Your task to perform on an android device: Open the calendar and show me this week's events? Image 0: 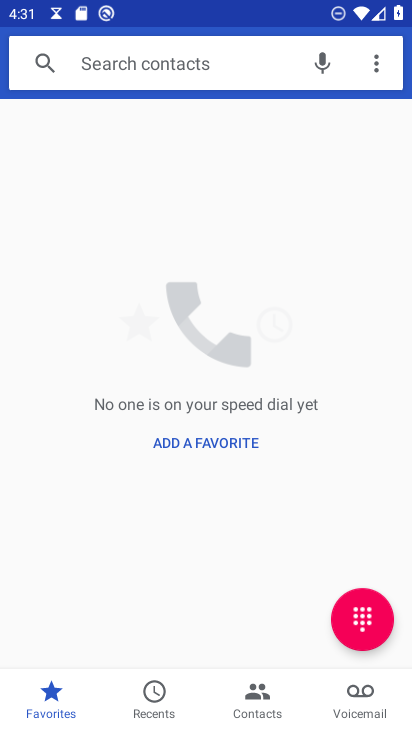
Step 0: press home button
Your task to perform on an android device: Open the calendar and show me this week's events? Image 1: 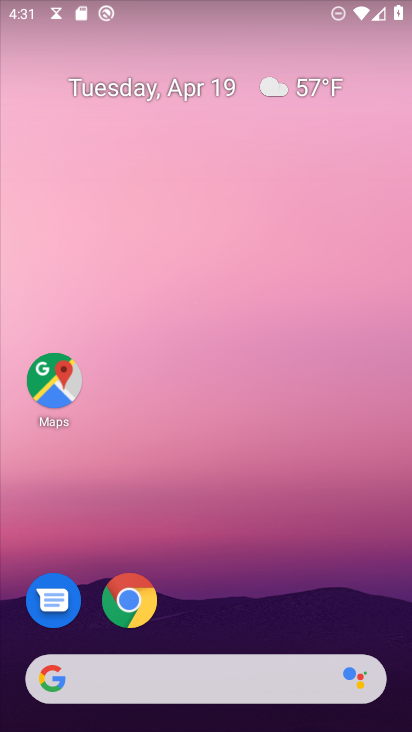
Step 1: drag from (328, 600) to (284, 169)
Your task to perform on an android device: Open the calendar and show me this week's events? Image 2: 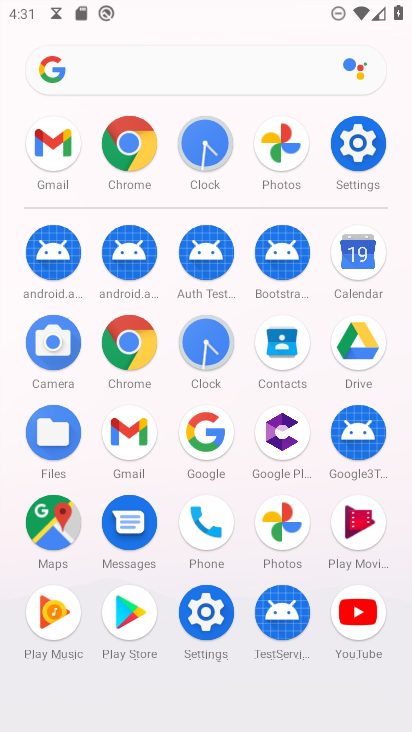
Step 2: click (374, 271)
Your task to perform on an android device: Open the calendar and show me this week's events? Image 3: 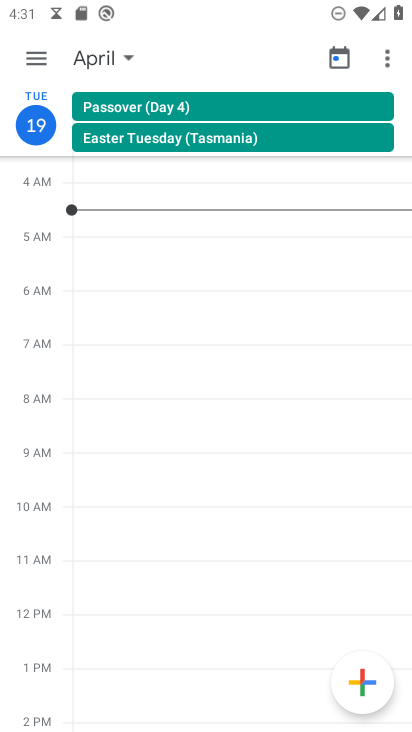
Step 3: click (41, 62)
Your task to perform on an android device: Open the calendar and show me this week's events? Image 4: 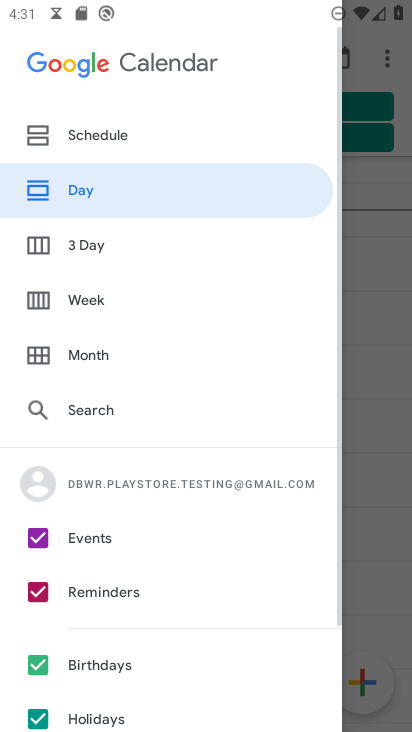
Step 4: drag from (241, 634) to (250, 276)
Your task to perform on an android device: Open the calendar and show me this week's events? Image 5: 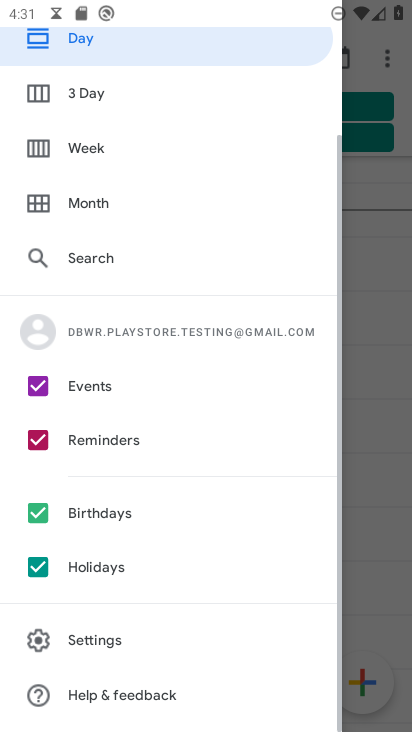
Step 5: click (129, 568)
Your task to perform on an android device: Open the calendar and show me this week's events? Image 6: 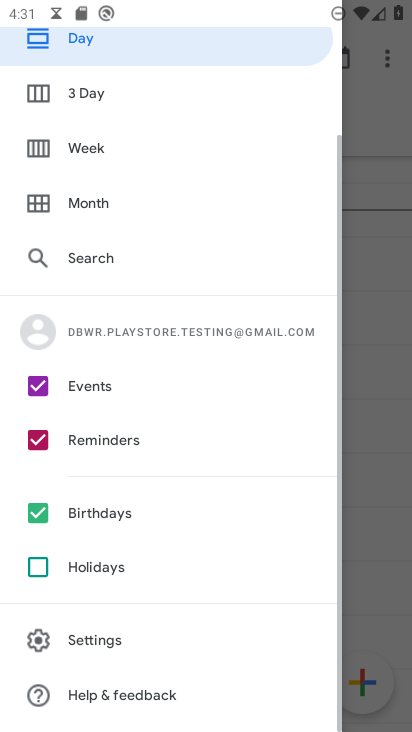
Step 6: click (134, 512)
Your task to perform on an android device: Open the calendar and show me this week's events? Image 7: 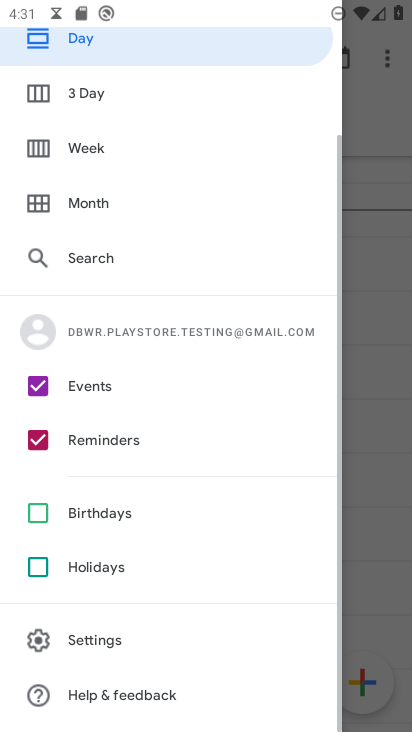
Step 7: click (140, 443)
Your task to perform on an android device: Open the calendar and show me this week's events? Image 8: 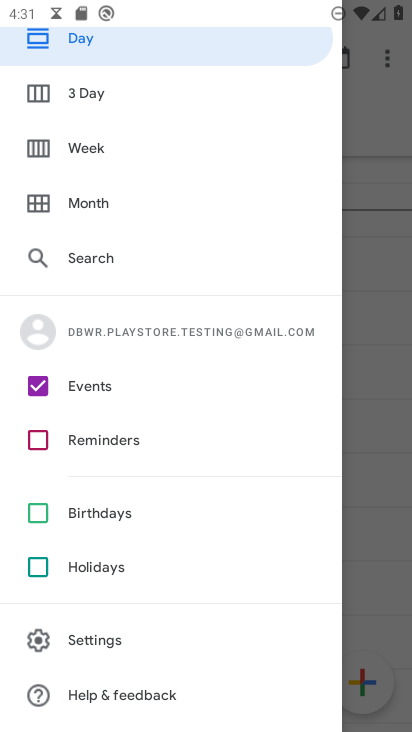
Step 8: click (162, 138)
Your task to perform on an android device: Open the calendar and show me this week's events? Image 9: 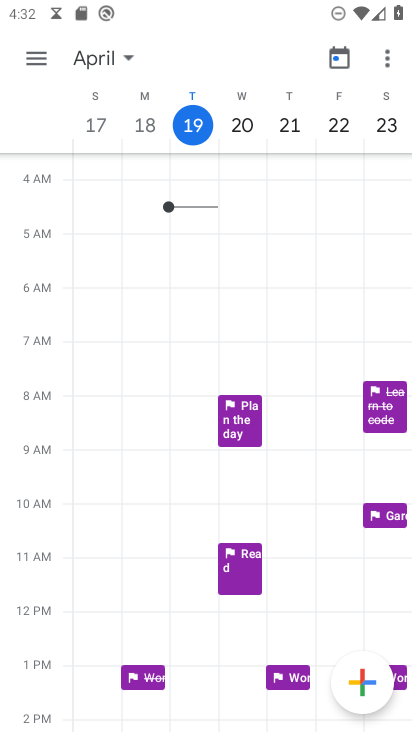
Step 9: click (125, 63)
Your task to perform on an android device: Open the calendar and show me this week's events? Image 10: 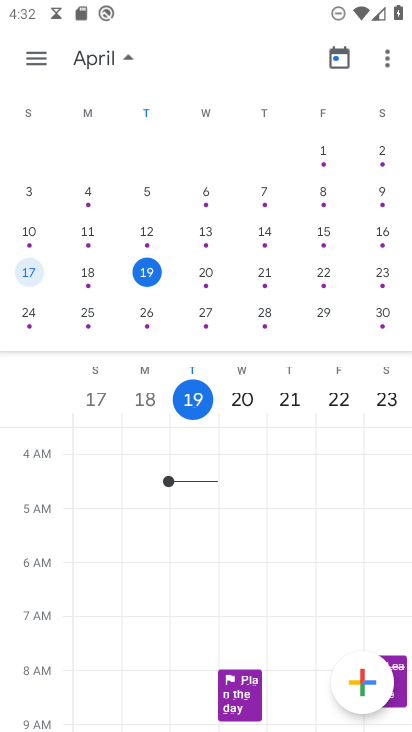
Step 10: click (208, 269)
Your task to perform on an android device: Open the calendar and show me this week's events? Image 11: 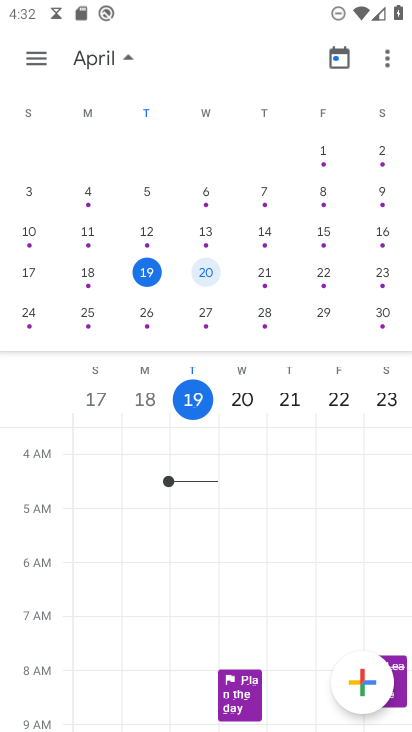
Step 11: click (121, 49)
Your task to perform on an android device: Open the calendar and show me this week's events? Image 12: 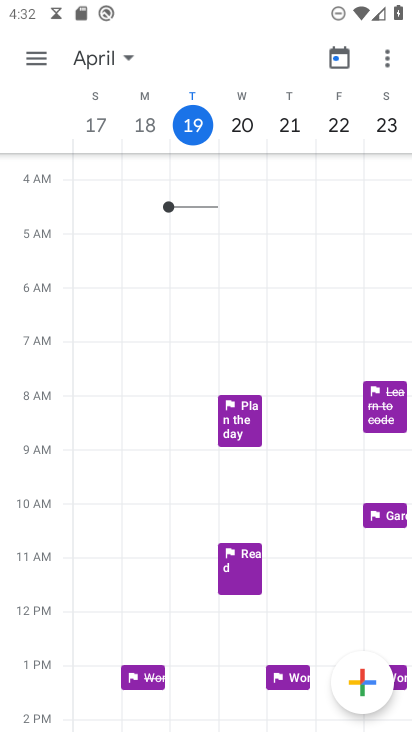
Step 12: task complete